Your task to perform on an android device: Open Chrome and go to settings Image 0: 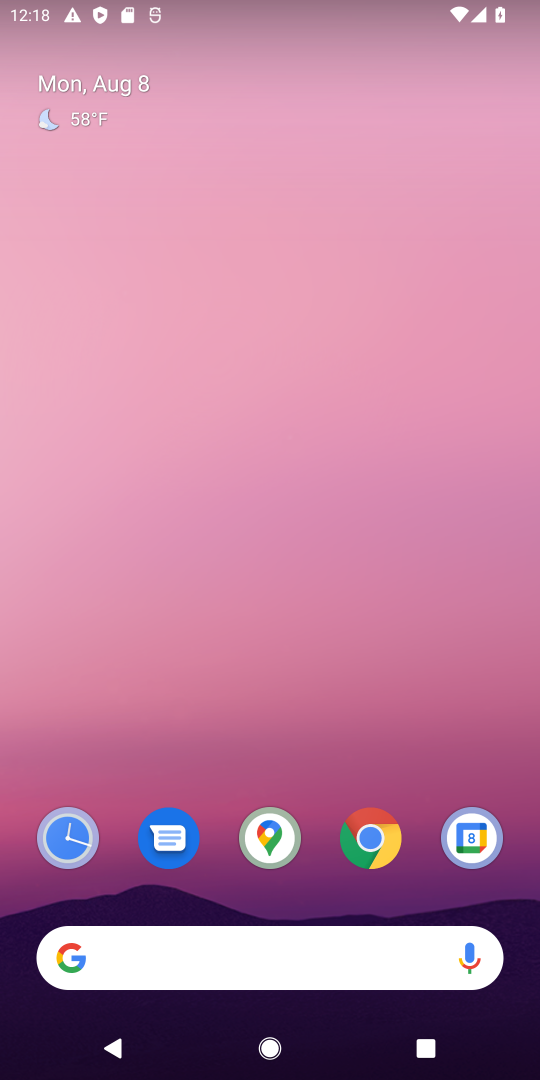
Step 0: press home button
Your task to perform on an android device: Open Chrome and go to settings Image 1: 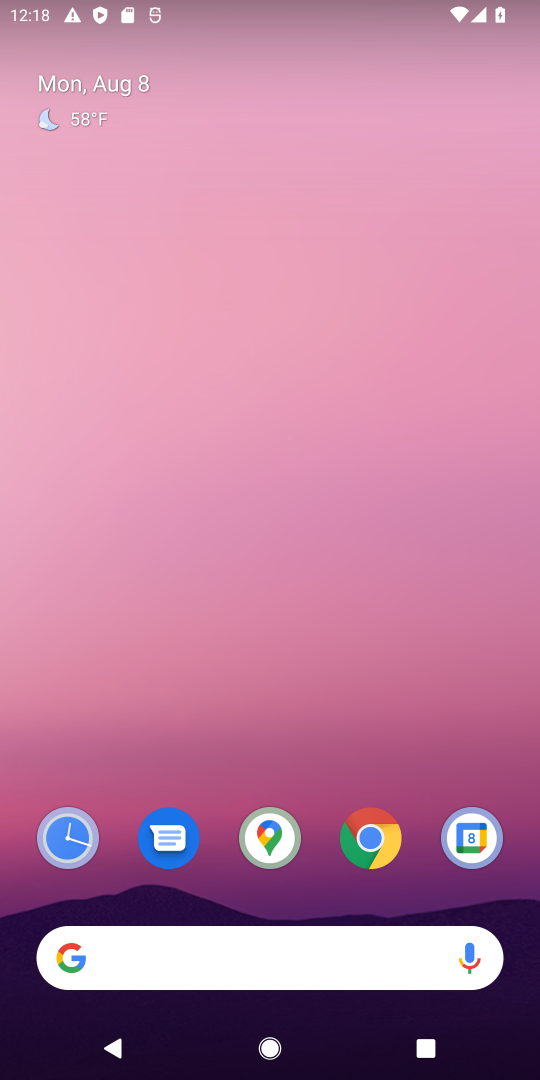
Step 1: drag from (353, 870) to (366, 405)
Your task to perform on an android device: Open Chrome and go to settings Image 2: 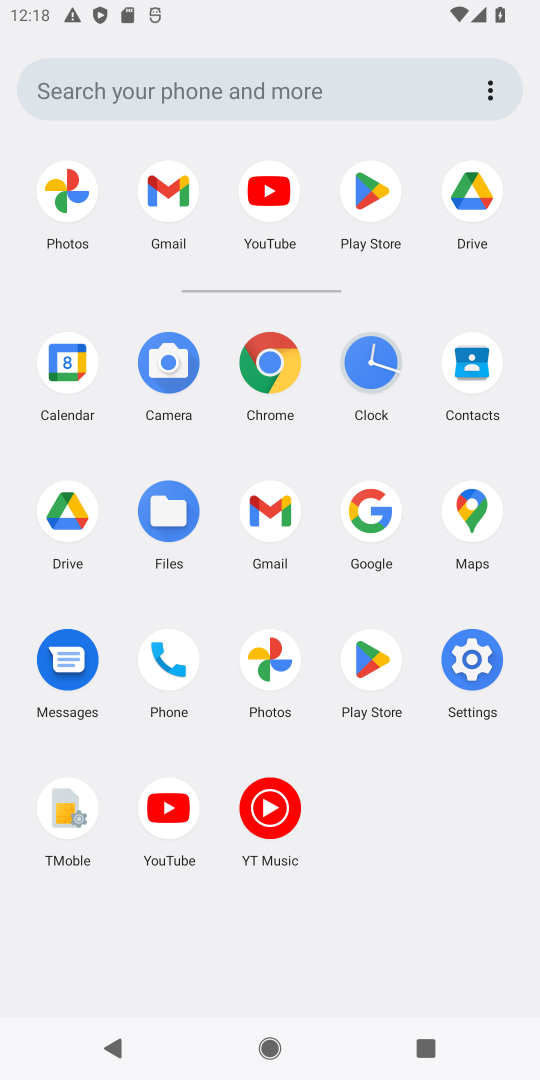
Step 2: click (270, 369)
Your task to perform on an android device: Open Chrome and go to settings Image 3: 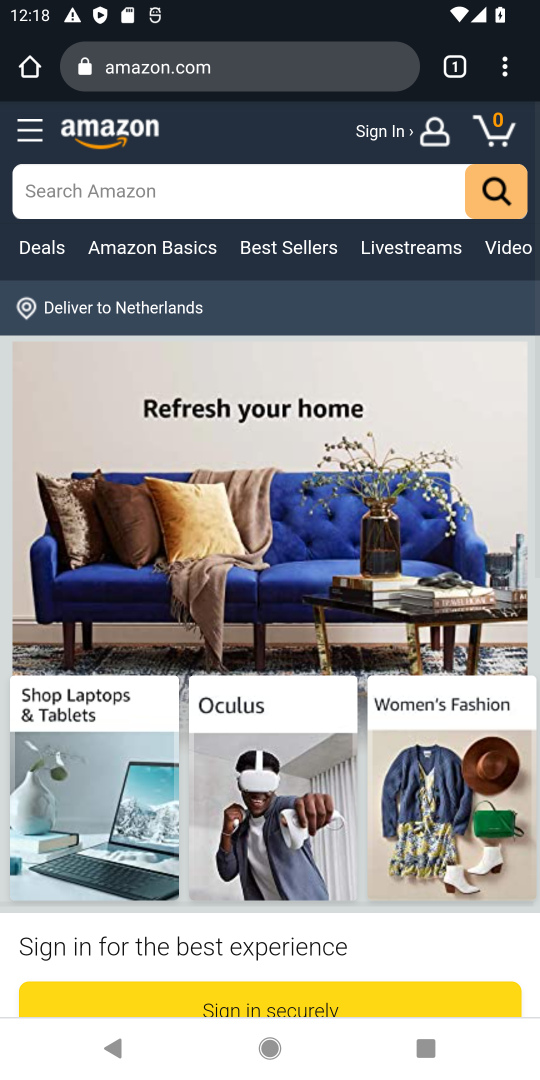
Step 3: click (466, 69)
Your task to perform on an android device: Open Chrome and go to settings Image 4: 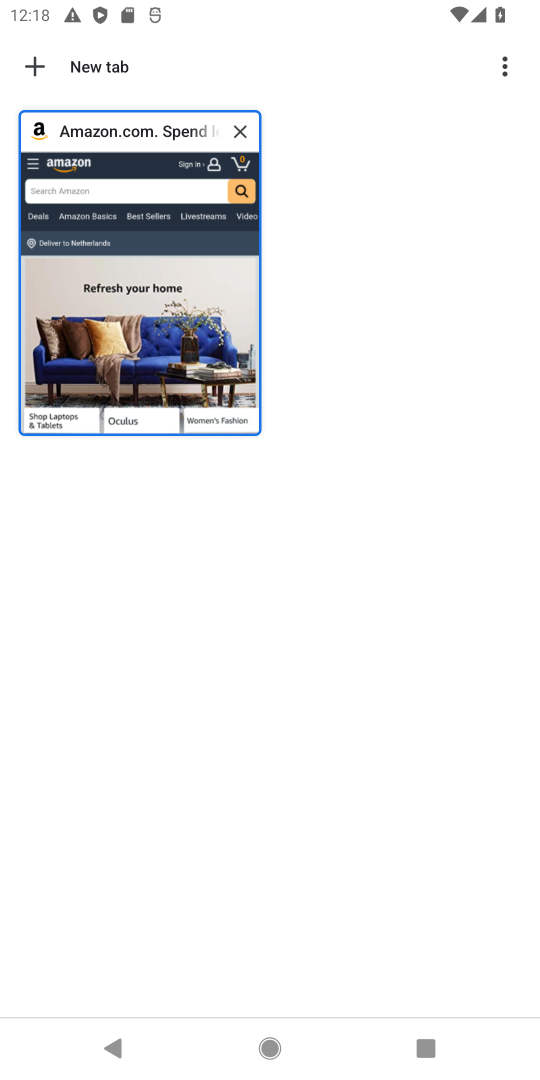
Step 4: click (39, 64)
Your task to perform on an android device: Open Chrome and go to settings Image 5: 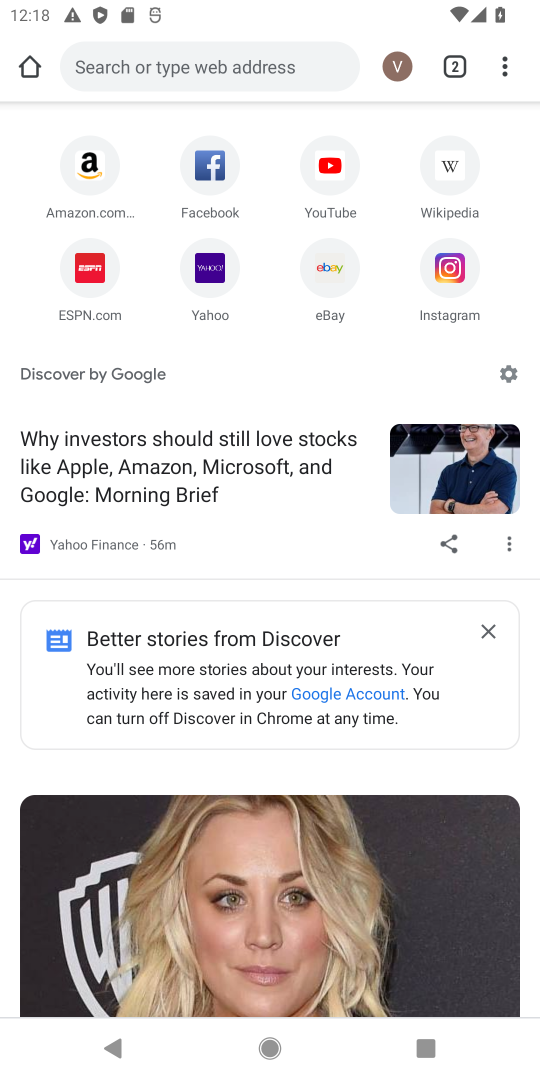
Step 5: task complete